Your task to perform on an android device: Open Yahoo.com Image 0: 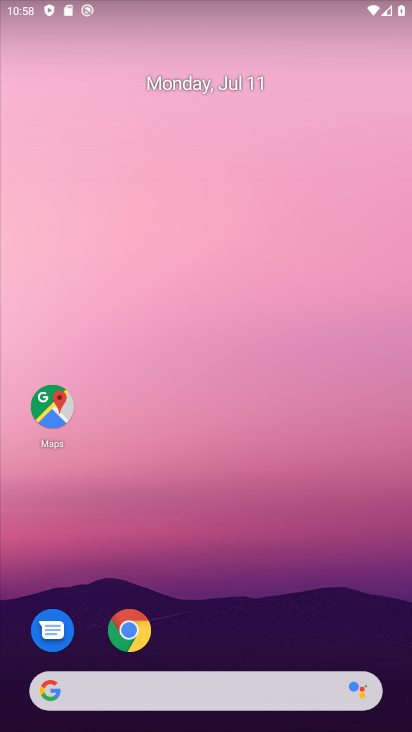
Step 0: click (139, 643)
Your task to perform on an android device: Open Yahoo.com Image 1: 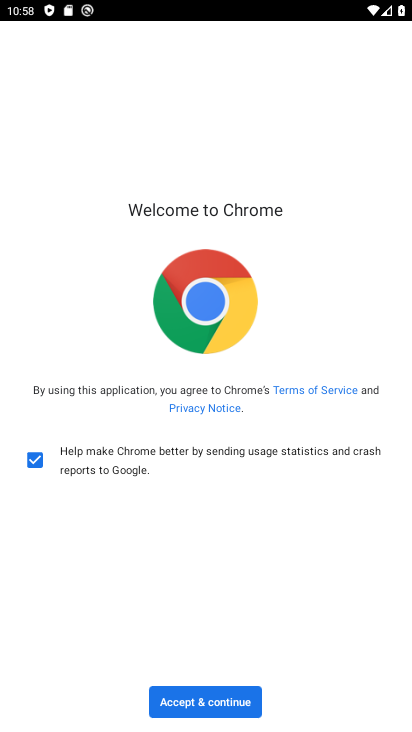
Step 1: click (210, 692)
Your task to perform on an android device: Open Yahoo.com Image 2: 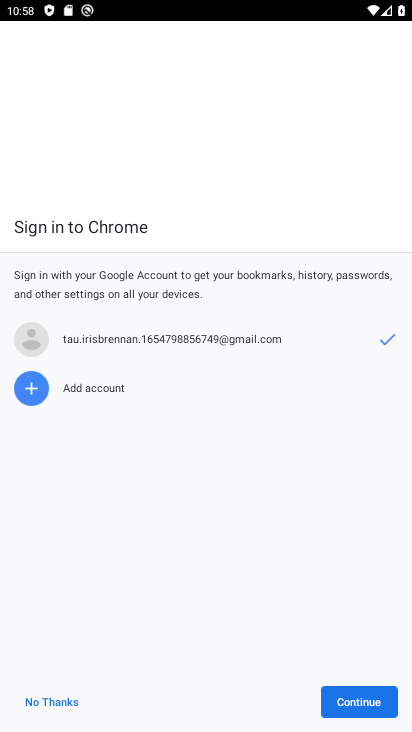
Step 2: click (390, 687)
Your task to perform on an android device: Open Yahoo.com Image 3: 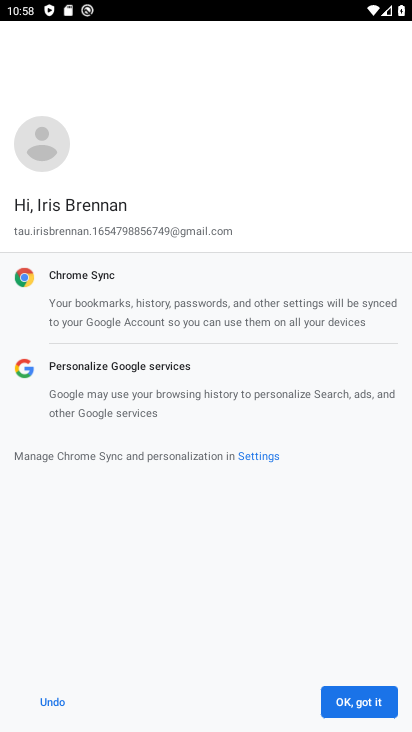
Step 3: click (368, 698)
Your task to perform on an android device: Open Yahoo.com Image 4: 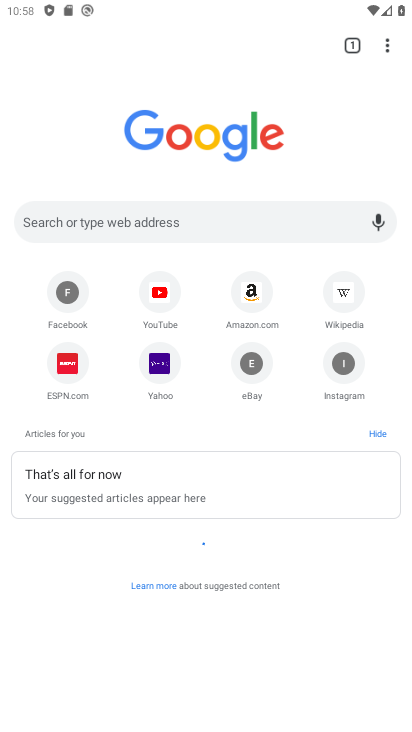
Step 4: click (164, 374)
Your task to perform on an android device: Open Yahoo.com Image 5: 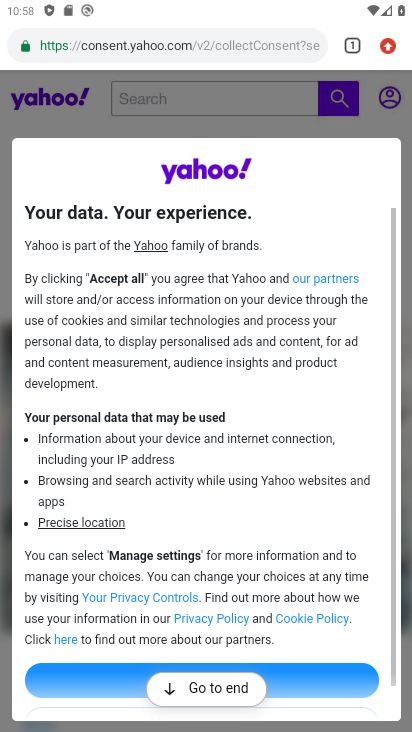
Step 5: task complete